Your task to perform on an android device: Go to Google Image 0: 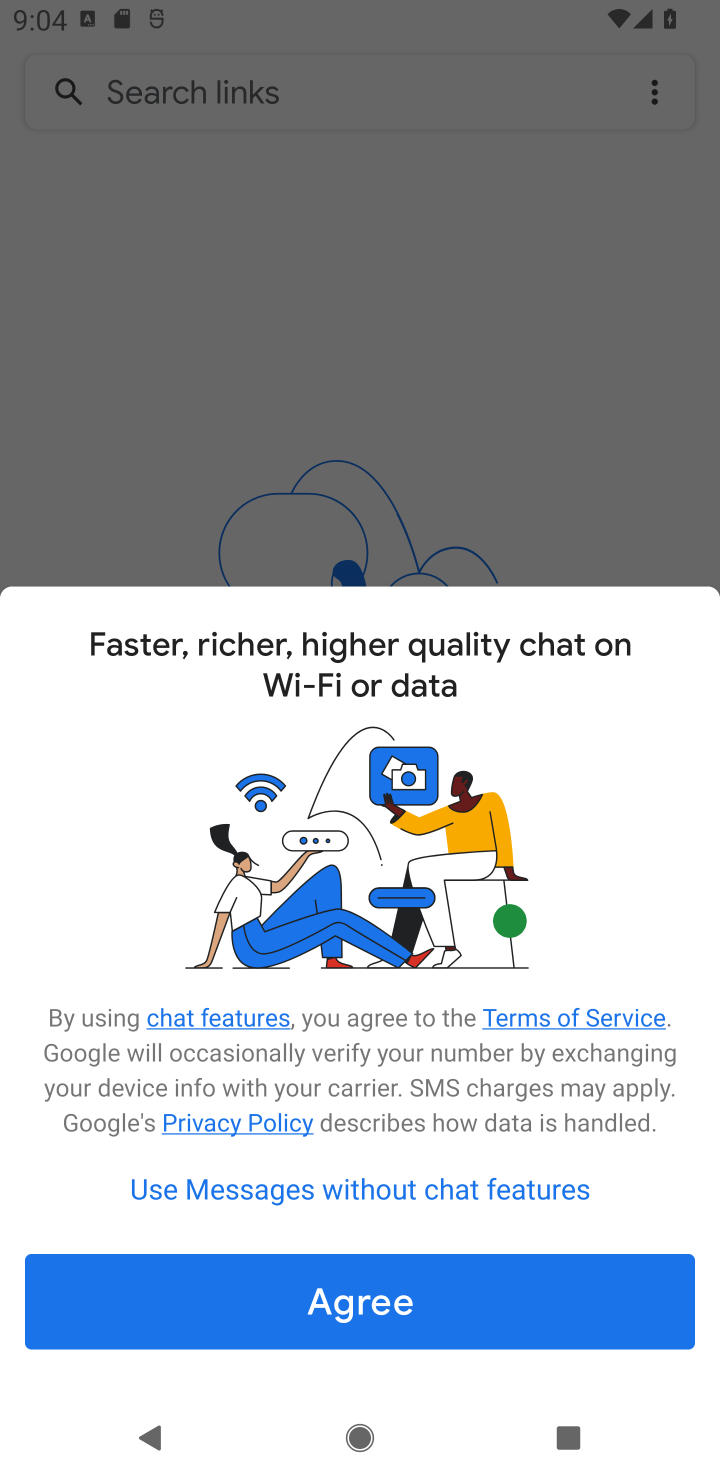
Step 0: press home button
Your task to perform on an android device: Go to Google Image 1: 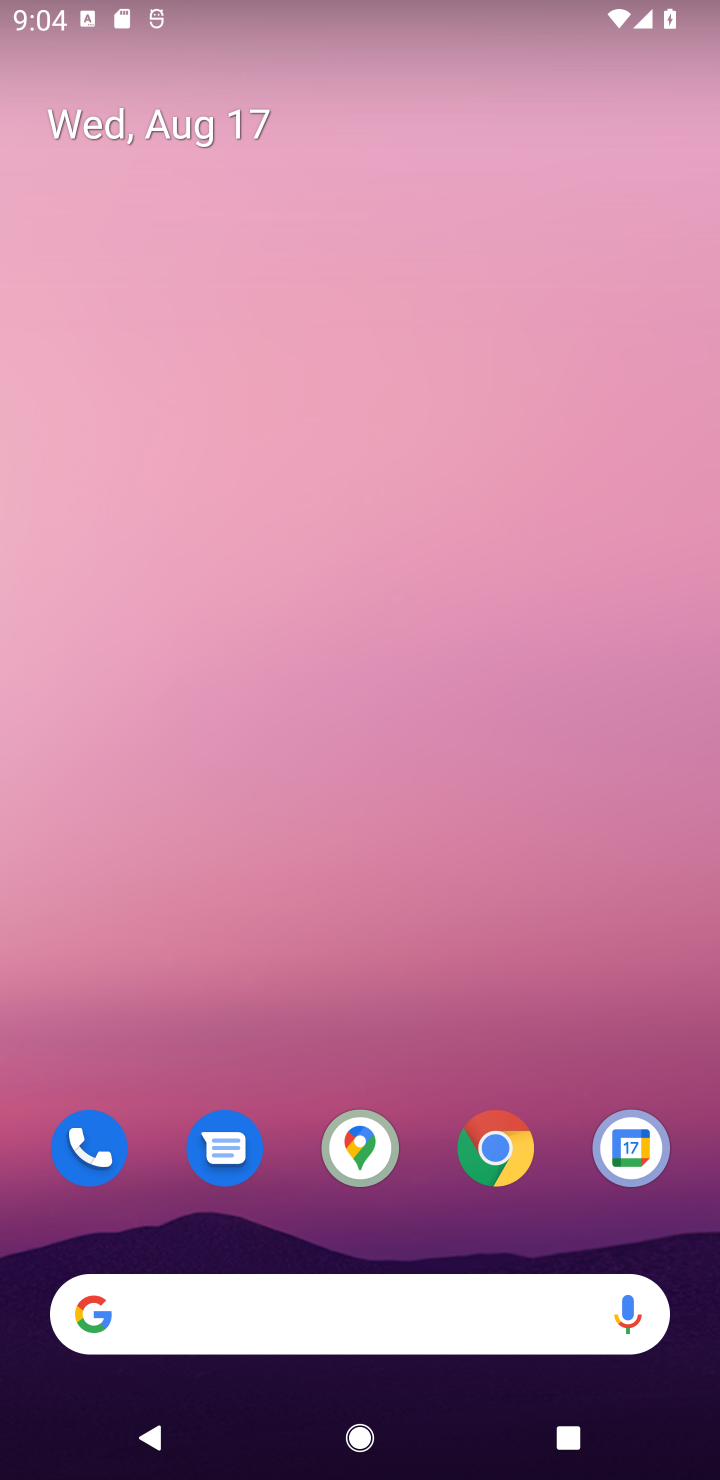
Step 1: click (503, 1146)
Your task to perform on an android device: Go to Google Image 2: 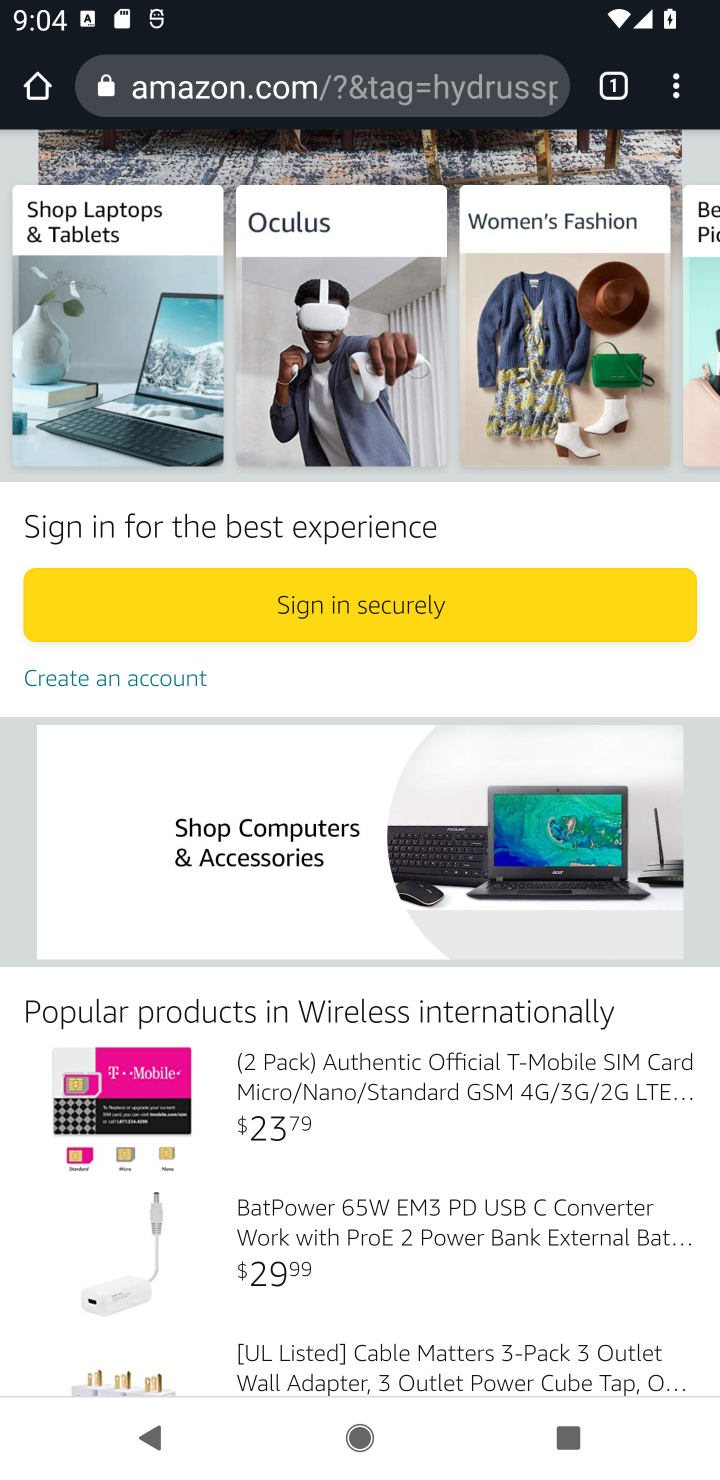
Step 2: task complete